Your task to perform on an android device: Go to Google maps Image 0: 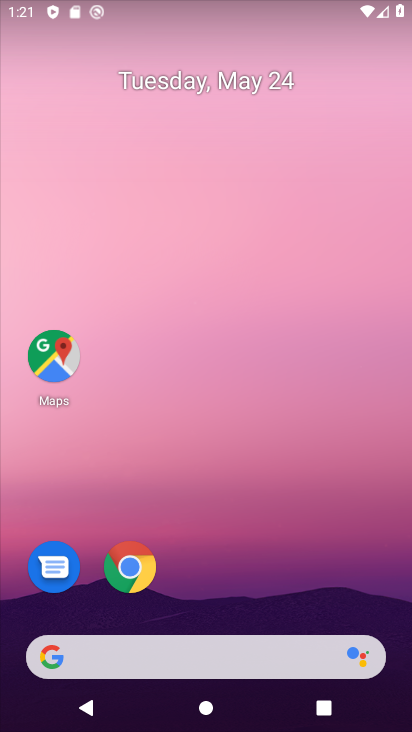
Step 0: click (61, 348)
Your task to perform on an android device: Go to Google maps Image 1: 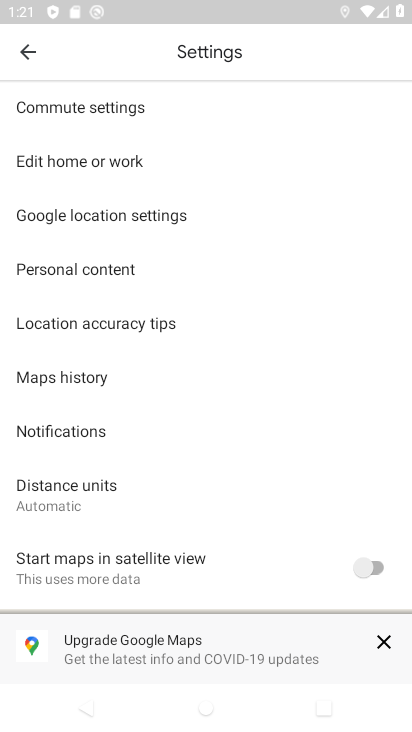
Step 1: click (385, 633)
Your task to perform on an android device: Go to Google maps Image 2: 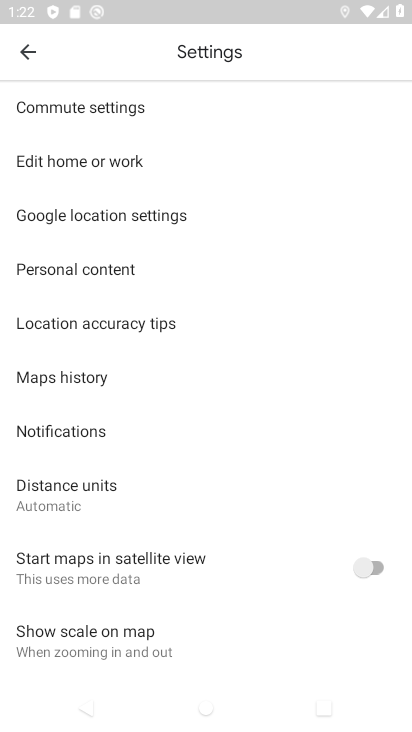
Step 2: click (39, 37)
Your task to perform on an android device: Go to Google maps Image 3: 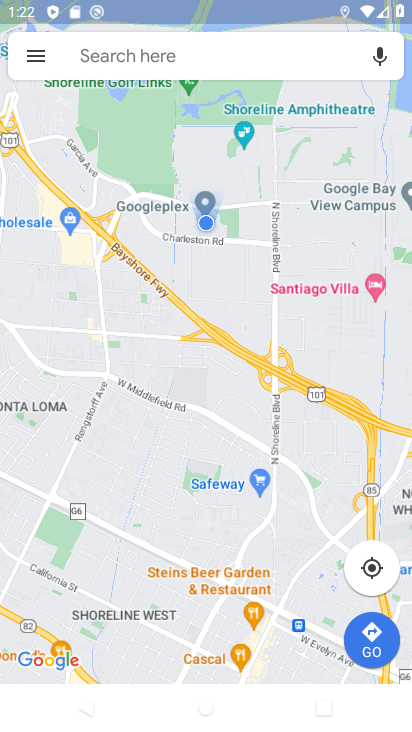
Step 3: task complete